Your task to perform on an android device: Open the phone app and click the voicemail tab. Image 0: 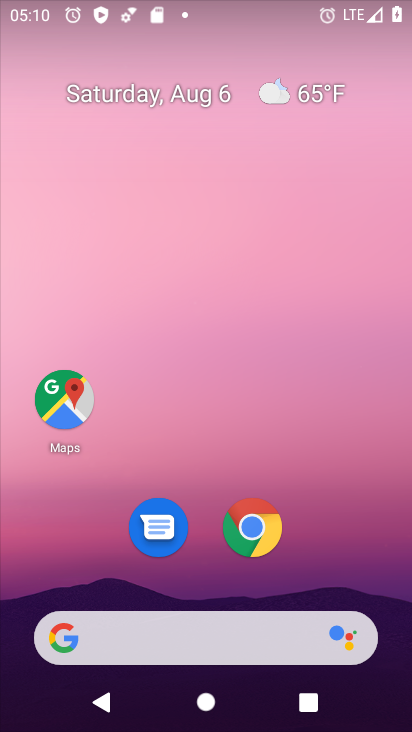
Step 0: drag from (188, 619) to (247, 175)
Your task to perform on an android device: Open the phone app and click the voicemail tab. Image 1: 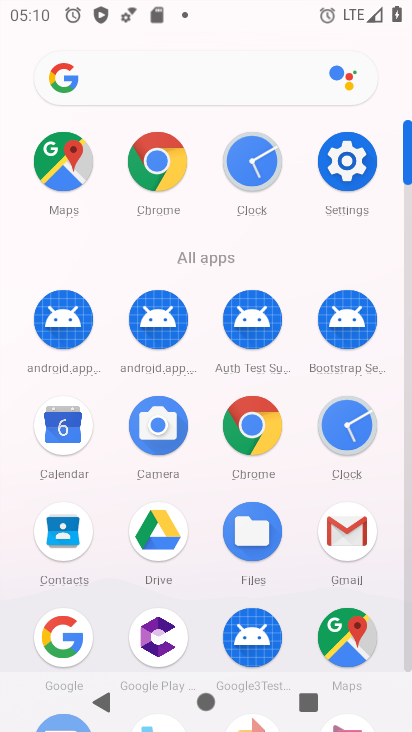
Step 1: drag from (207, 579) to (198, 325)
Your task to perform on an android device: Open the phone app and click the voicemail tab. Image 2: 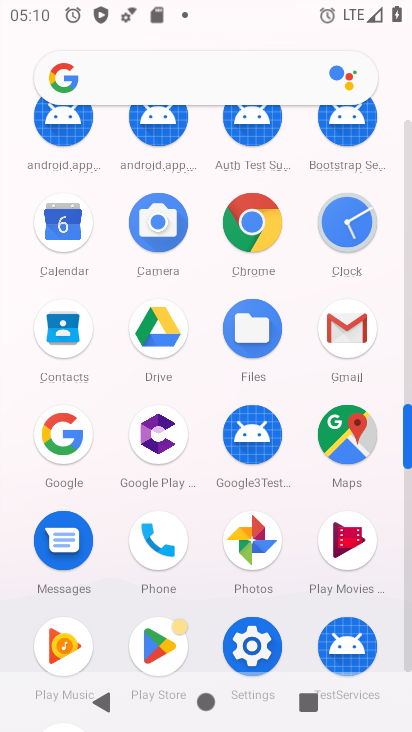
Step 2: click (151, 573)
Your task to perform on an android device: Open the phone app and click the voicemail tab. Image 3: 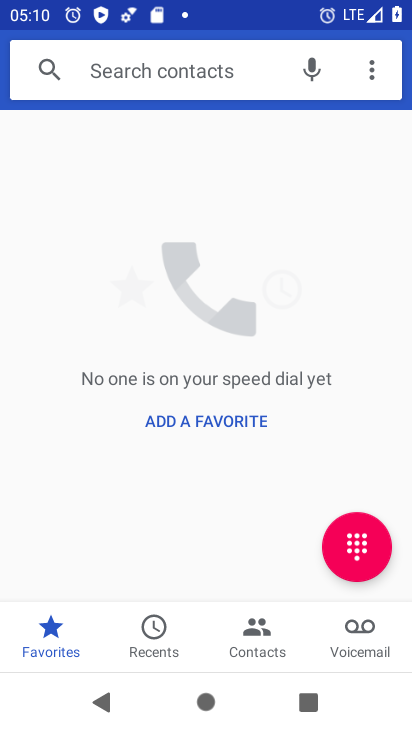
Step 3: click (351, 623)
Your task to perform on an android device: Open the phone app and click the voicemail tab. Image 4: 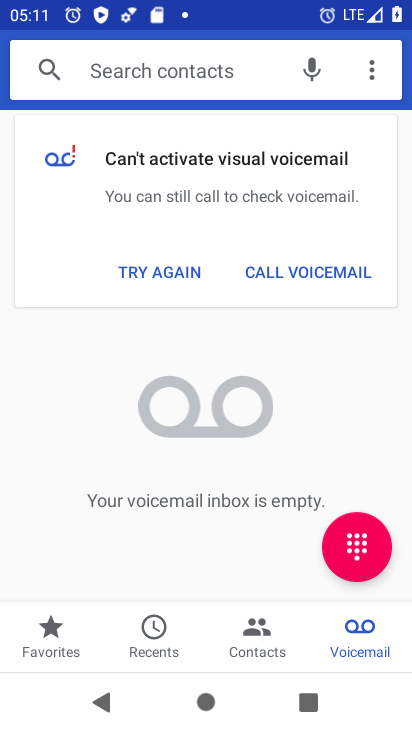
Step 4: task complete